Your task to perform on an android device: What's on my calendar tomorrow? Image 0: 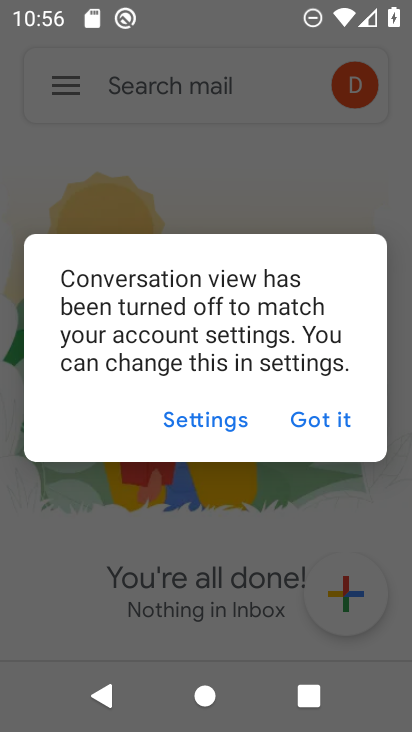
Step 0: press home button
Your task to perform on an android device: What's on my calendar tomorrow? Image 1: 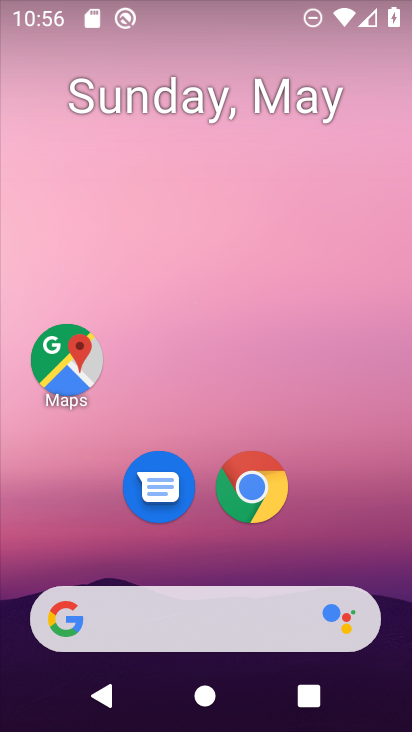
Step 1: drag from (333, 224) to (312, 130)
Your task to perform on an android device: What's on my calendar tomorrow? Image 2: 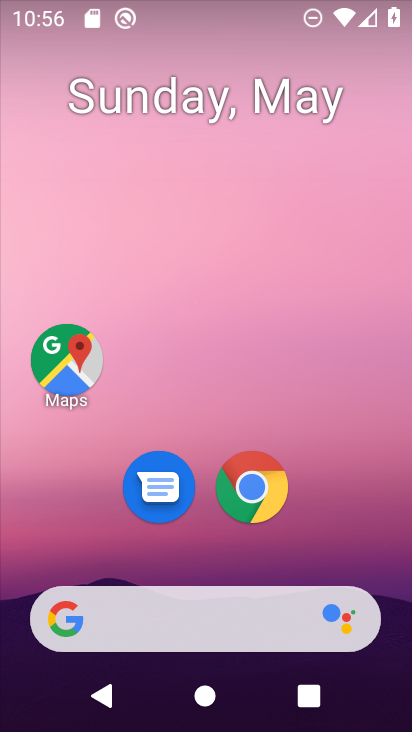
Step 2: drag from (345, 544) to (350, 51)
Your task to perform on an android device: What's on my calendar tomorrow? Image 3: 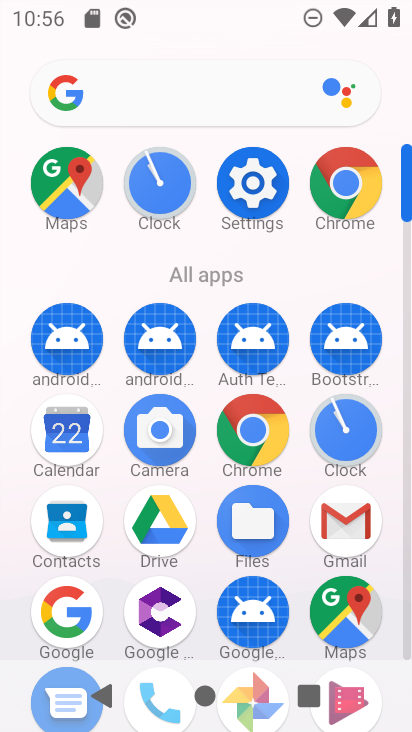
Step 3: click (92, 439)
Your task to perform on an android device: What's on my calendar tomorrow? Image 4: 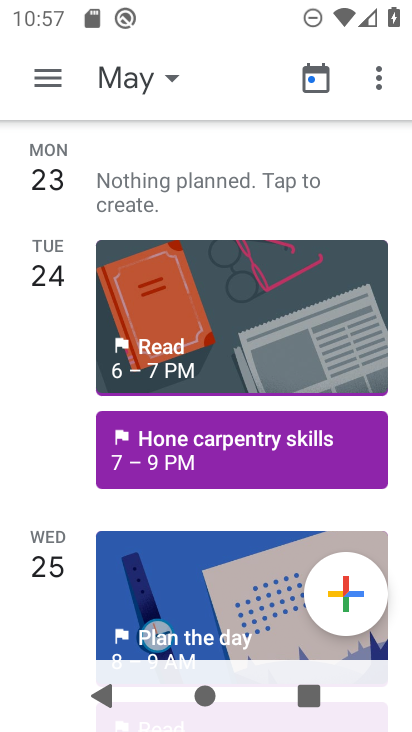
Step 4: task complete